Your task to perform on an android device: Go to Android settings Image 0: 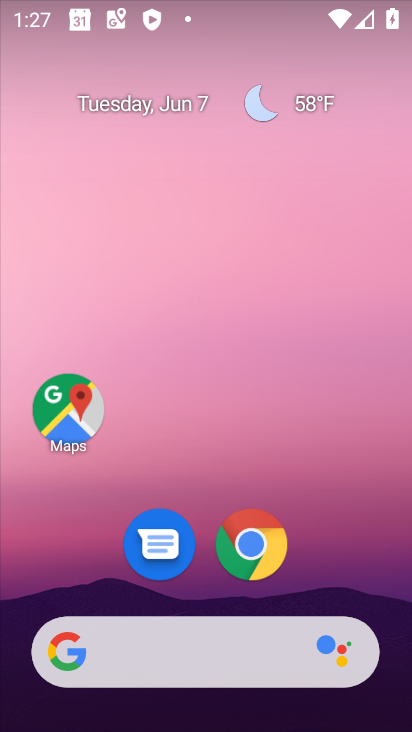
Step 0: drag from (186, 635) to (152, 6)
Your task to perform on an android device: Go to Android settings Image 1: 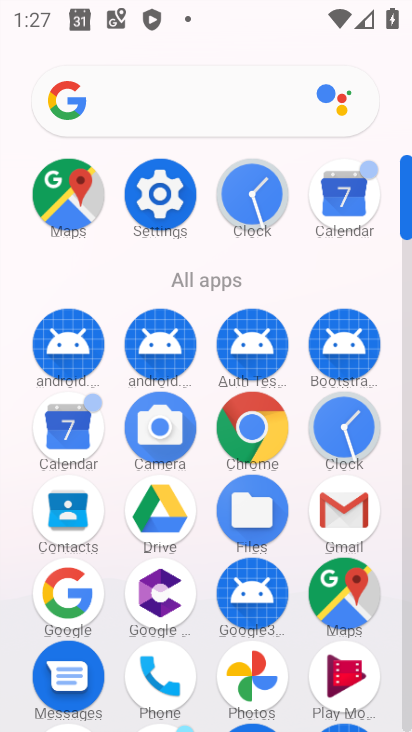
Step 1: click (179, 212)
Your task to perform on an android device: Go to Android settings Image 2: 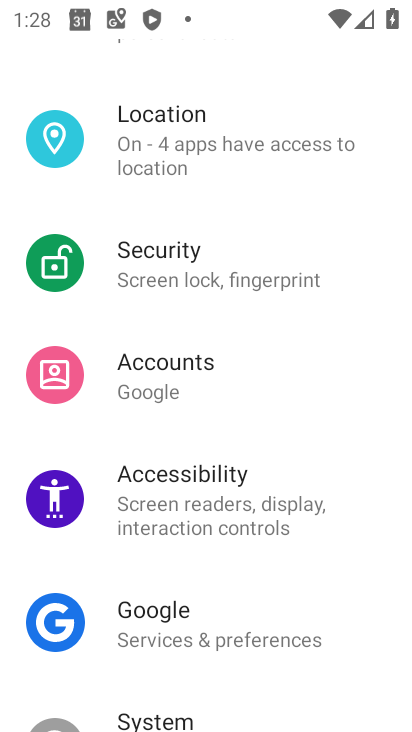
Step 2: task complete